Your task to perform on an android device: Show me the alarms in the clock app Image 0: 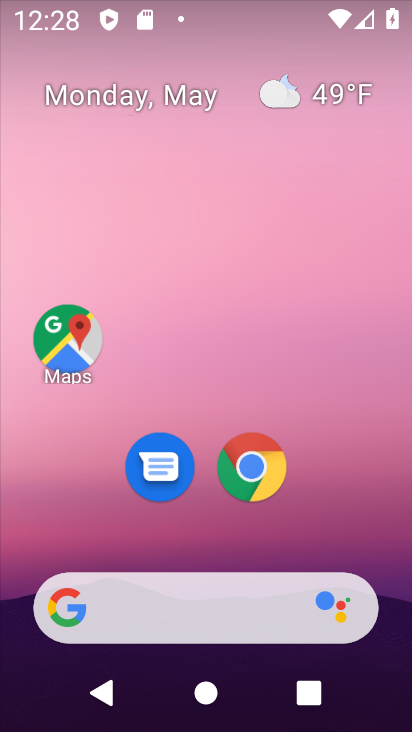
Step 0: drag from (373, 531) to (358, 189)
Your task to perform on an android device: Show me the alarms in the clock app Image 1: 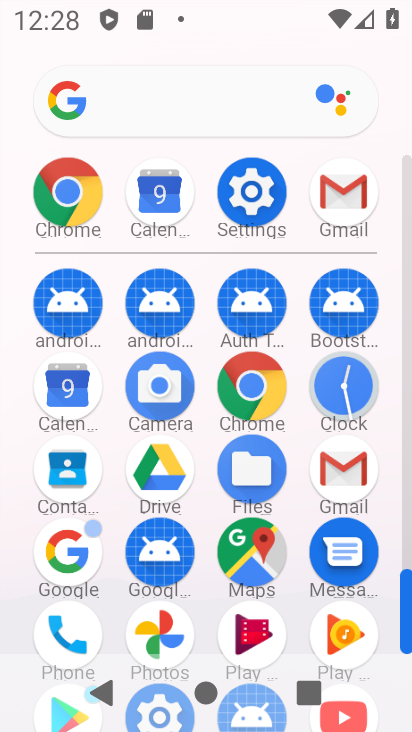
Step 1: click (341, 412)
Your task to perform on an android device: Show me the alarms in the clock app Image 2: 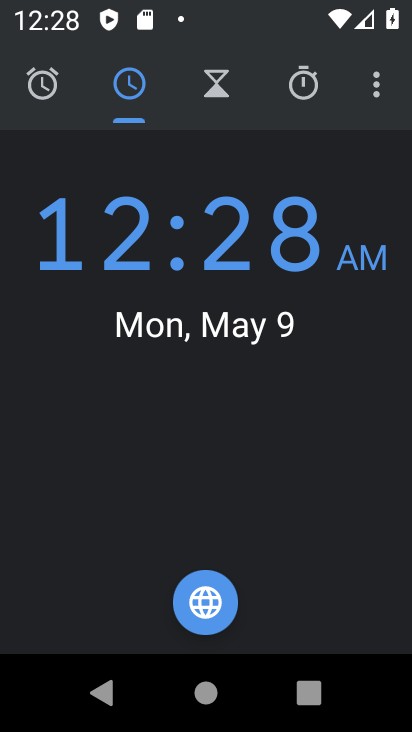
Step 2: click (47, 82)
Your task to perform on an android device: Show me the alarms in the clock app Image 3: 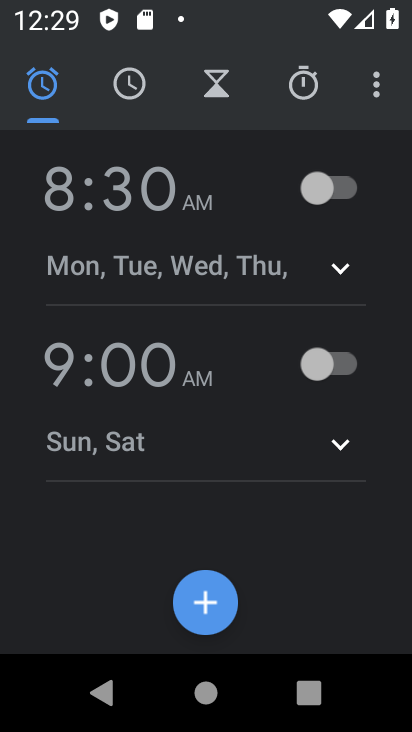
Step 3: task complete